Your task to perform on an android device: toggle priority inbox in the gmail app Image 0: 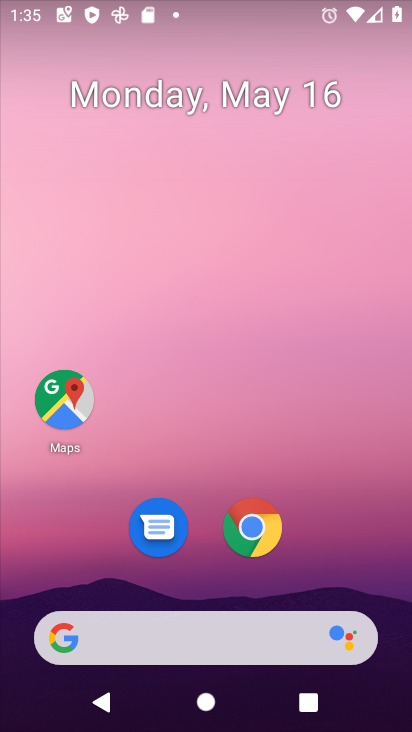
Step 0: click (404, 58)
Your task to perform on an android device: toggle priority inbox in the gmail app Image 1: 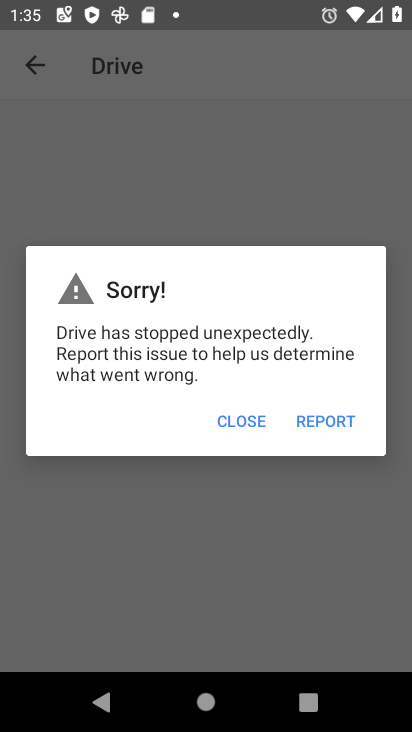
Step 1: press home button
Your task to perform on an android device: toggle priority inbox in the gmail app Image 2: 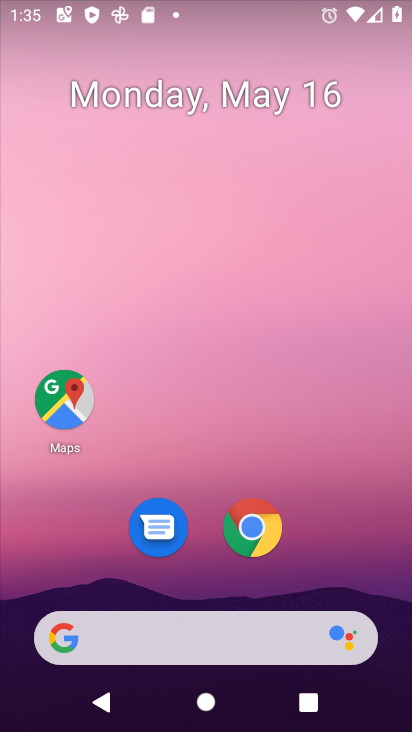
Step 2: drag from (350, 511) to (371, 92)
Your task to perform on an android device: toggle priority inbox in the gmail app Image 3: 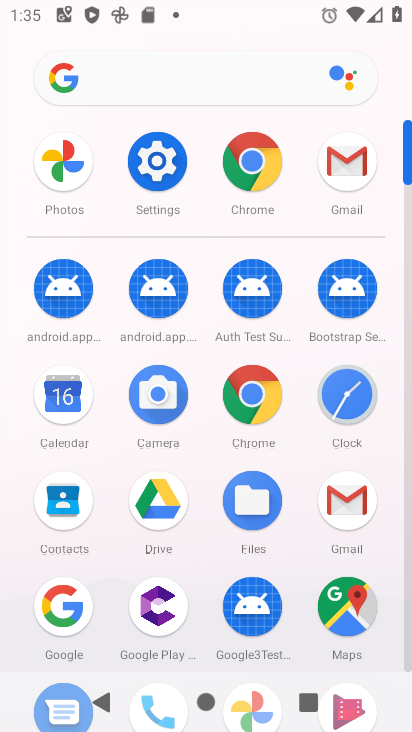
Step 3: click (352, 186)
Your task to perform on an android device: toggle priority inbox in the gmail app Image 4: 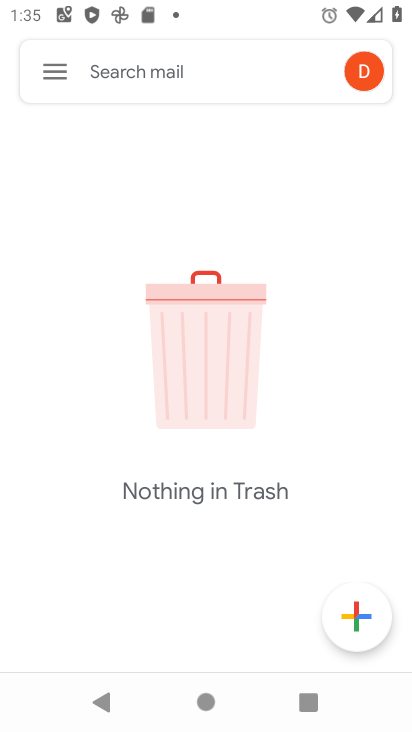
Step 4: click (64, 86)
Your task to perform on an android device: toggle priority inbox in the gmail app Image 5: 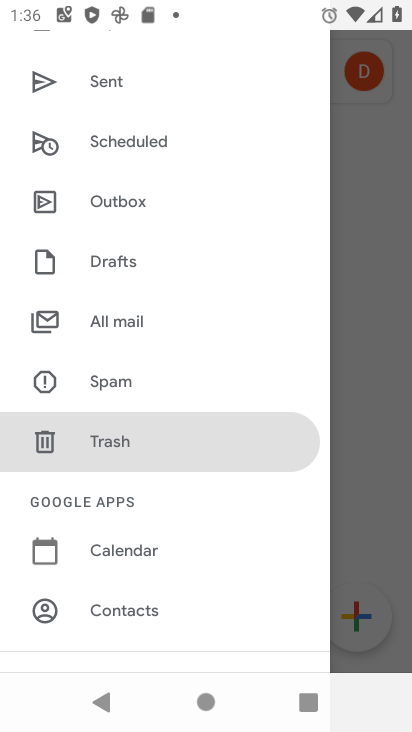
Step 5: drag from (153, 205) to (206, 155)
Your task to perform on an android device: toggle priority inbox in the gmail app Image 6: 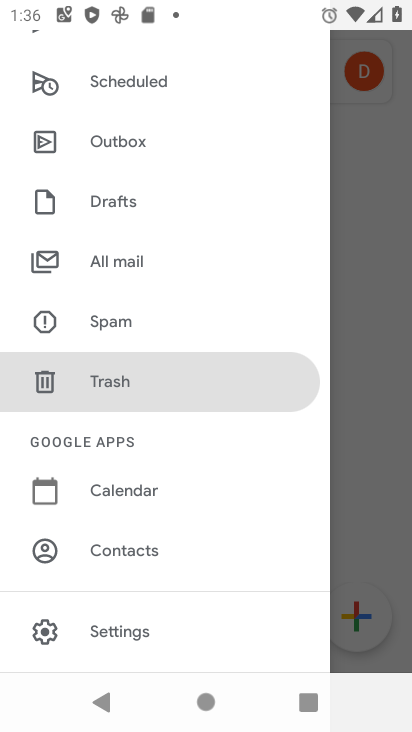
Step 6: click (145, 614)
Your task to perform on an android device: toggle priority inbox in the gmail app Image 7: 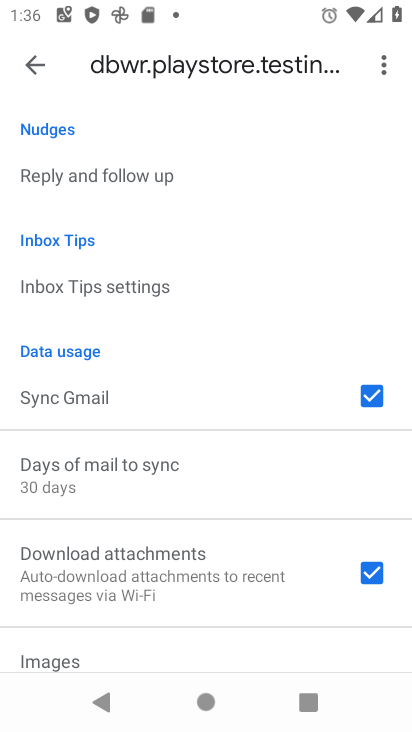
Step 7: drag from (195, 335) to (251, 68)
Your task to perform on an android device: toggle priority inbox in the gmail app Image 8: 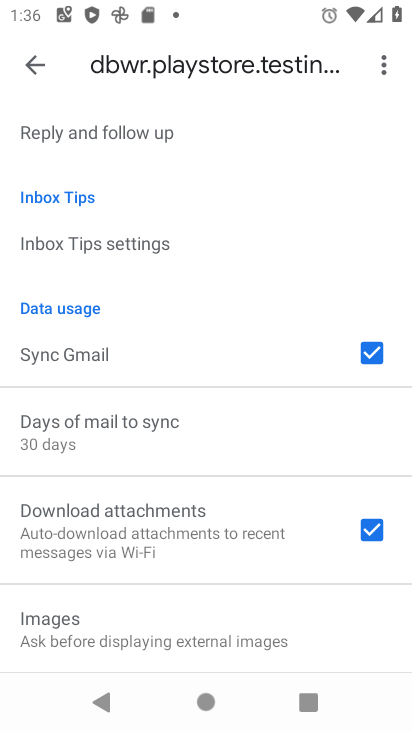
Step 8: click (212, 161)
Your task to perform on an android device: toggle priority inbox in the gmail app Image 9: 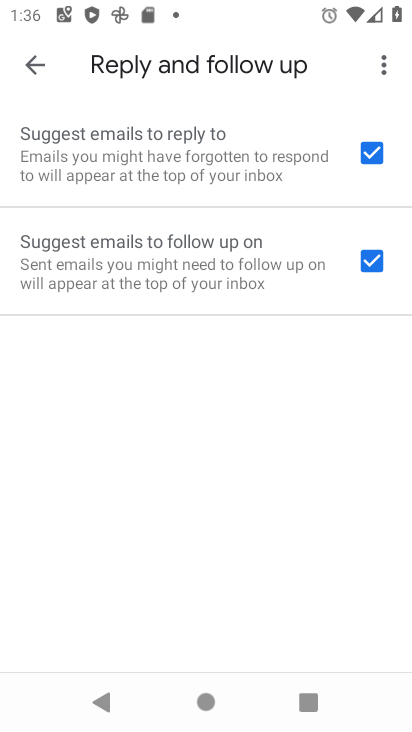
Step 9: click (212, 161)
Your task to perform on an android device: toggle priority inbox in the gmail app Image 10: 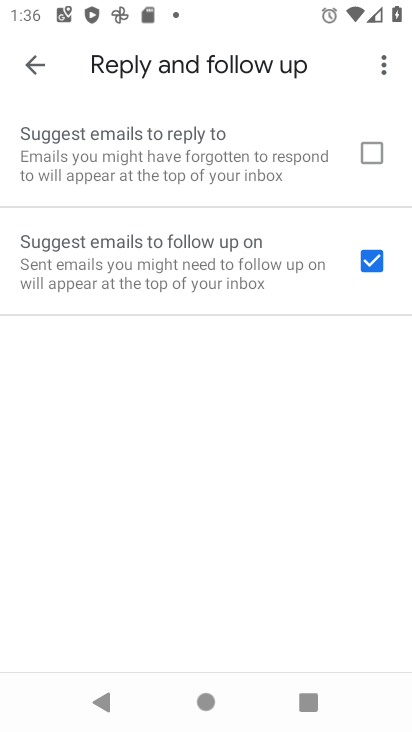
Step 10: click (143, 154)
Your task to perform on an android device: toggle priority inbox in the gmail app Image 11: 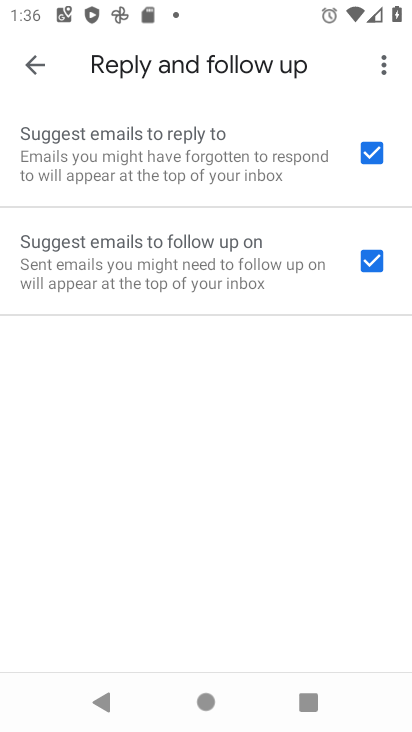
Step 11: click (42, 64)
Your task to perform on an android device: toggle priority inbox in the gmail app Image 12: 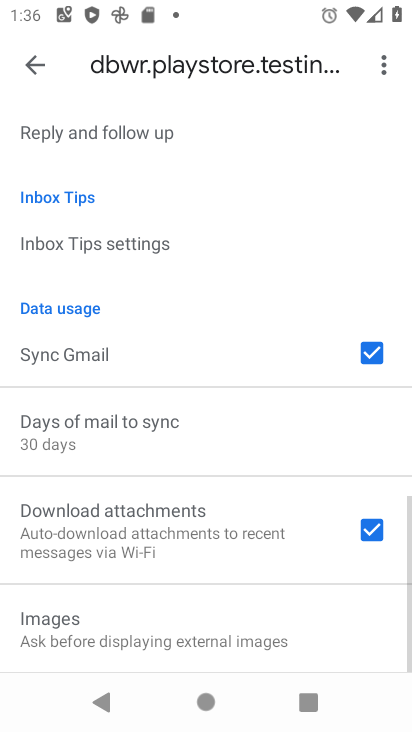
Step 12: task complete